Your task to perform on an android device: open app "DuckDuckGo Privacy Browser" (install if not already installed) and enter user name: "cleaving@outlook.com" and password: "freighters" Image 0: 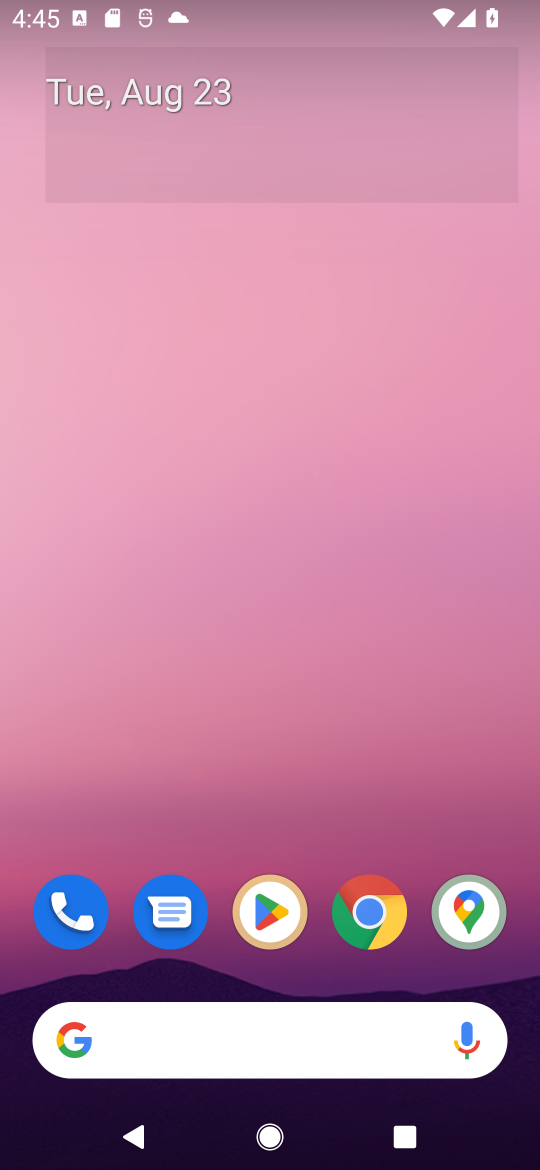
Step 0: drag from (219, 1024) to (282, 98)
Your task to perform on an android device: open app "DuckDuckGo Privacy Browser" (install if not already installed) and enter user name: "cleaving@outlook.com" and password: "freighters" Image 1: 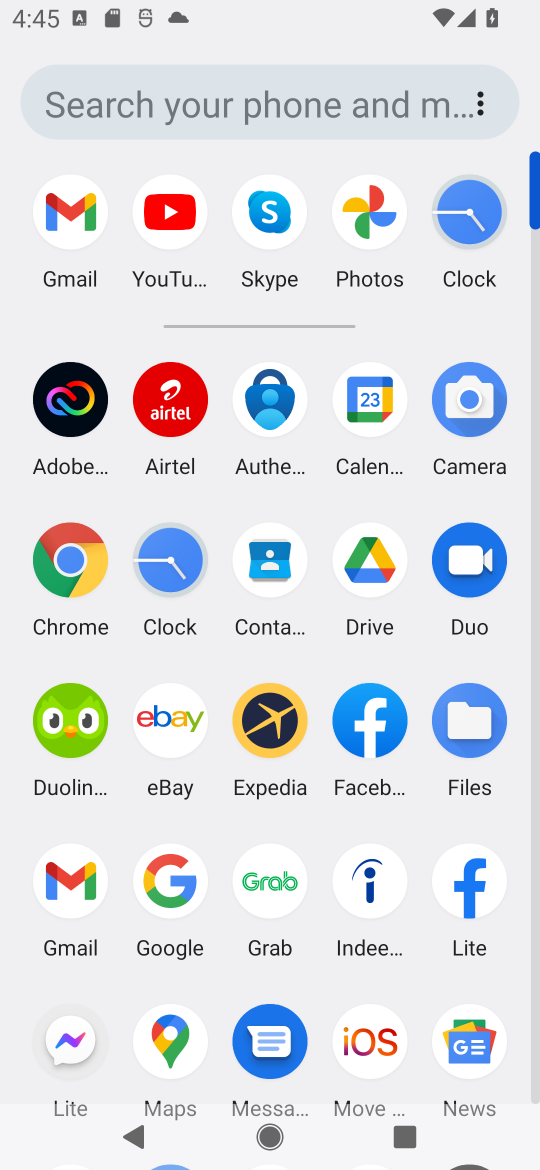
Step 1: drag from (318, 909) to (370, 357)
Your task to perform on an android device: open app "DuckDuckGo Privacy Browser" (install if not already installed) and enter user name: "cleaving@outlook.com" and password: "freighters" Image 2: 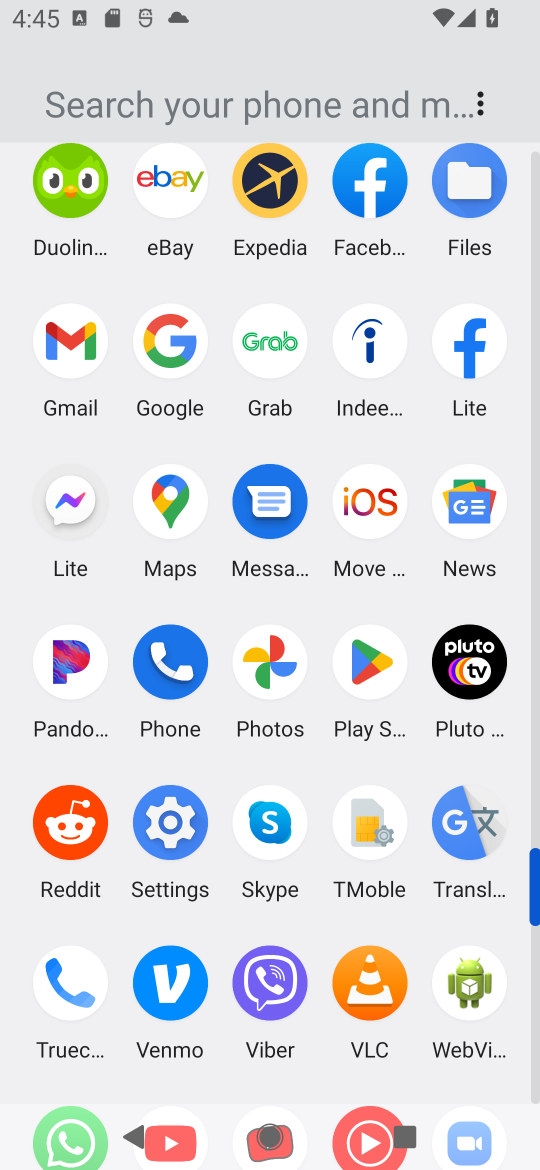
Step 2: click (369, 669)
Your task to perform on an android device: open app "DuckDuckGo Privacy Browser" (install if not already installed) and enter user name: "cleaving@outlook.com" and password: "freighters" Image 3: 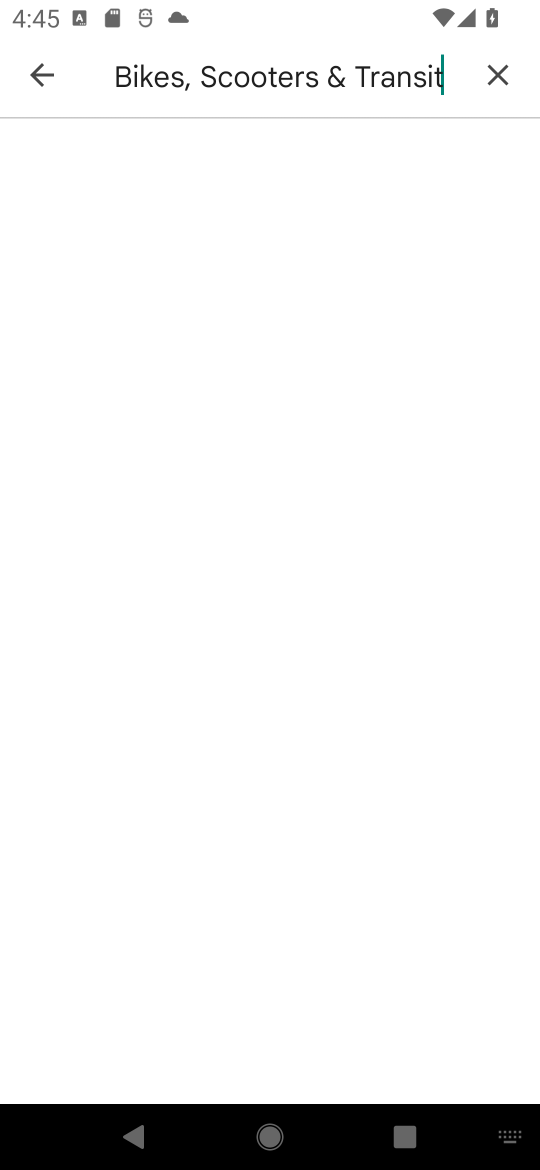
Step 3: press back button
Your task to perform on an android device: open app "DuckDuckGo Privacy Browser" (install if not already installed) and enter user name: "cleaving@outlook.com" and password: "freighters" Image 4: 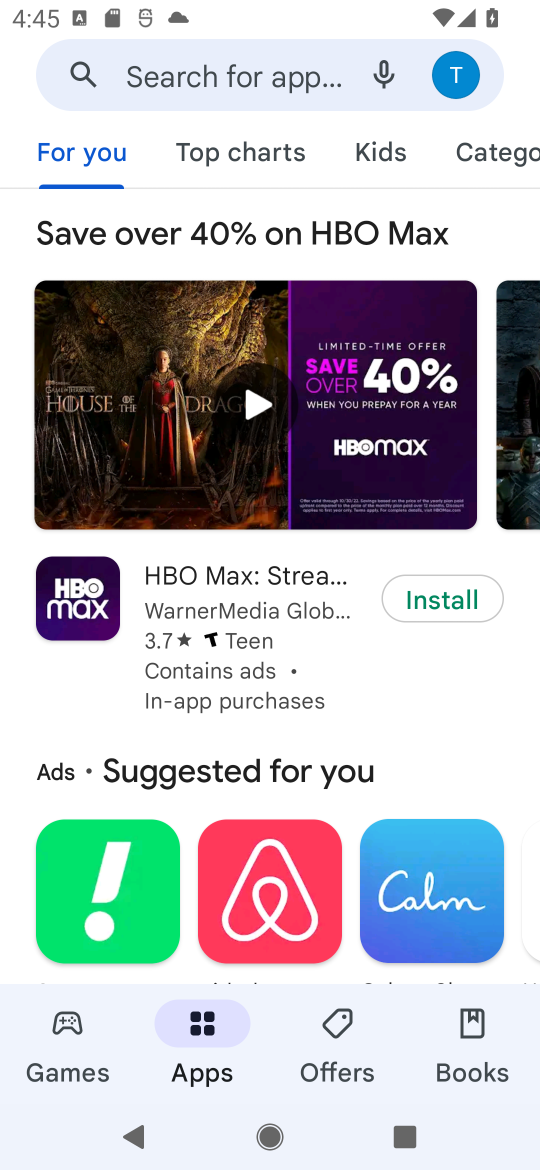
Step 4: click (191, 71)
Your task to perform on an android device: open app "DuckDuckGo Privacy Browser" (install if not already installed) and enter user name: "cleaving@outlook.com" and password: "freighters" Image 5: 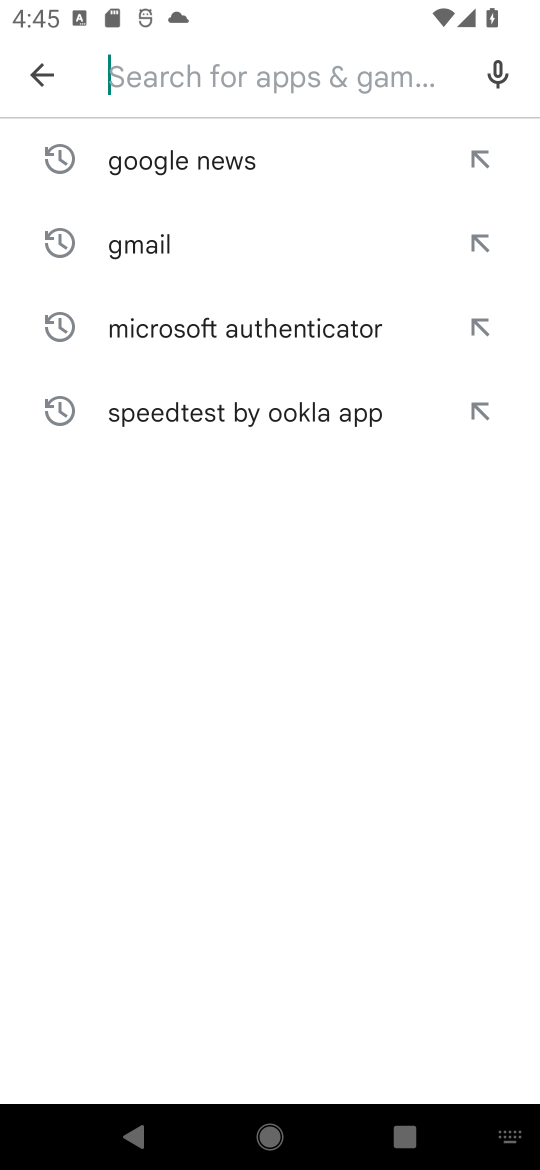
Step 5: click (165, 72)
Your task to perform on an android device: open app "DuckDuckGo Privacy Browser" (install if not already installed) and enter user name: "cleaving@outlook.com" and password: "freighters" Image 6: 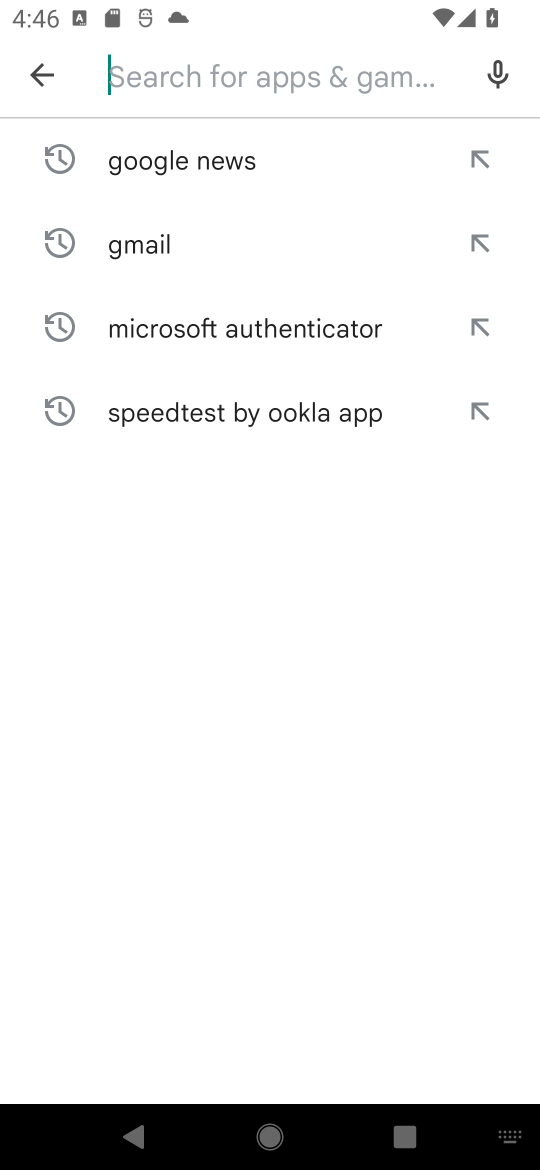
Step 6: type "DuckDuckGo Privacy Browser"
Your task to perform on an android device: open app "DuckDuckGo Privacy Browser" (install if not already installed) and enter user name: "cleaving@outlook.com" and password: "freighters" Image 7: 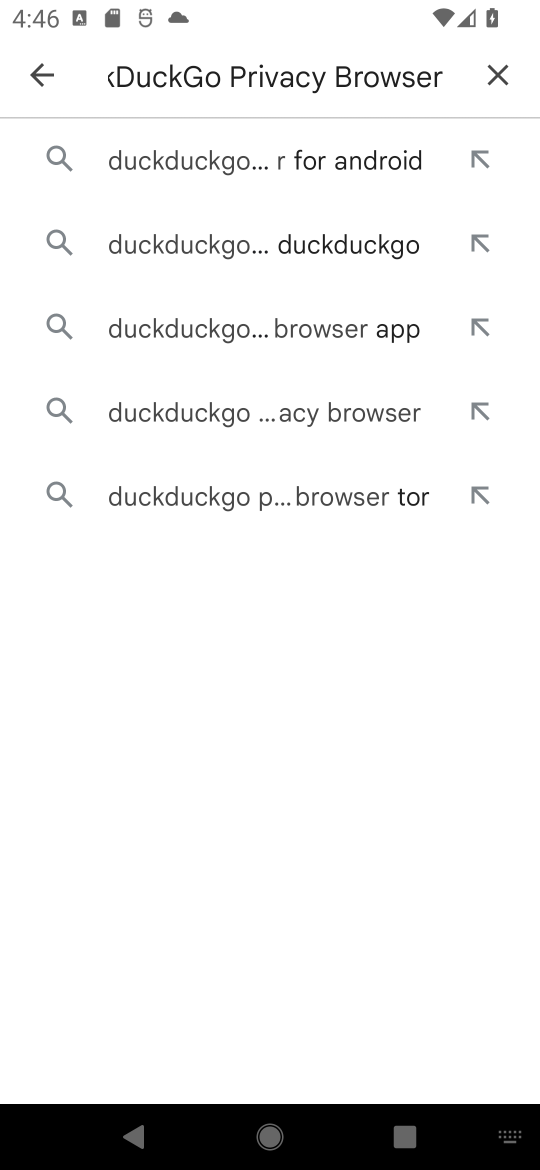
Step 7: click (192, 237)
Your task to perform on an android device: open app "DuckDuckGo Privacy Browser" (install if not already installed) and enter user name: "cleaving@outlook.com" and password: "freighters" Image 8: 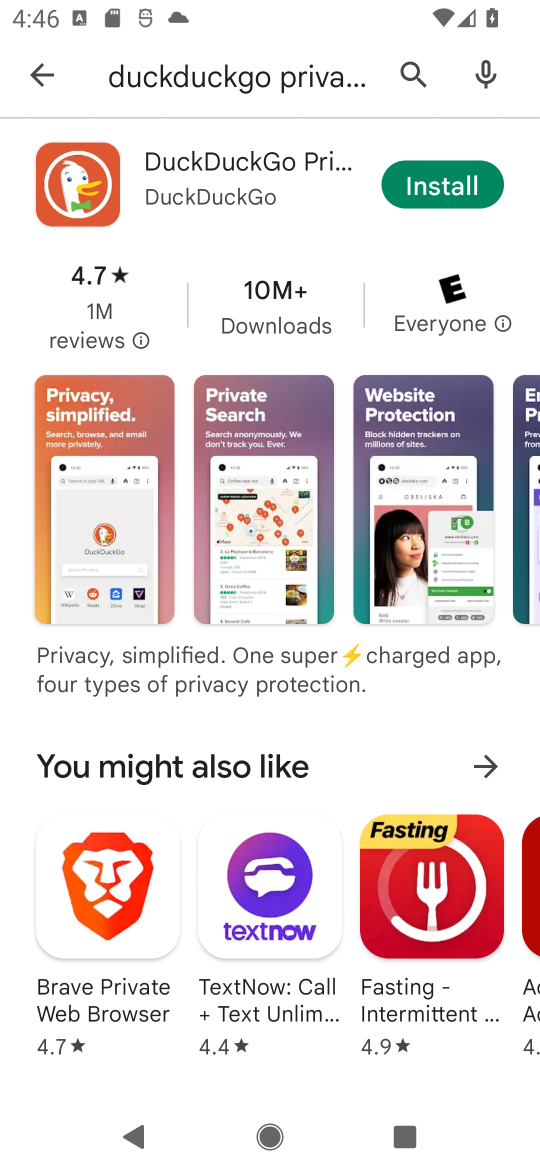
Step 8: click (446, 192)
Your task to perform on an android device: open app "DuckDuckGo Privacy Browser" (install if not already installed) and enter user name: "cleaving@outlook.com" and password: "freighters" Image 9: 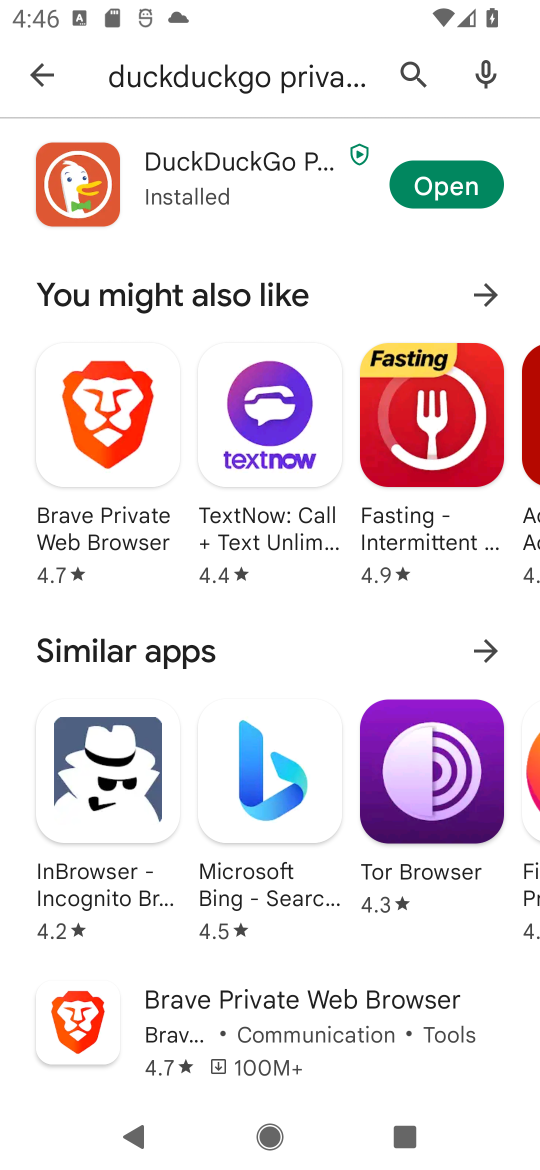
Step 9: click (446, 192)
Your task to perform on an android device: open app "DuckDuckGo Privacy Browser" (install if not already installed) and enter user name: "cleaving@outlook.com" and password: "freighters" Image 10: 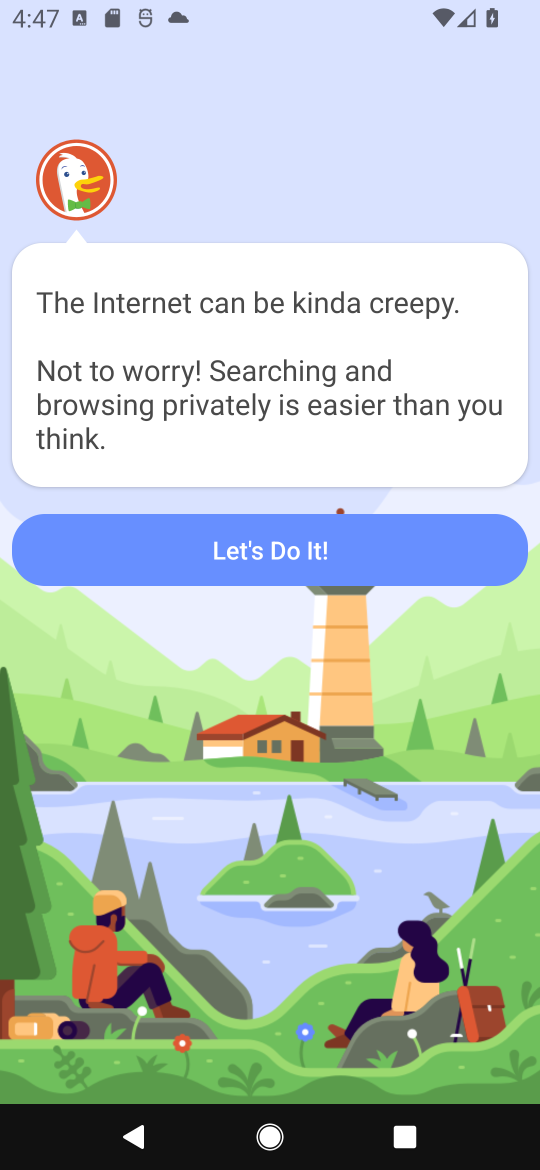
Step 10: click (263, 550)
Your task to perform on an android device: open app "DuckDuckGo Privacy Browser" (install if not already installed) and enter user name: "cleaving@outlook.com" and password: "freighters" Image 11: 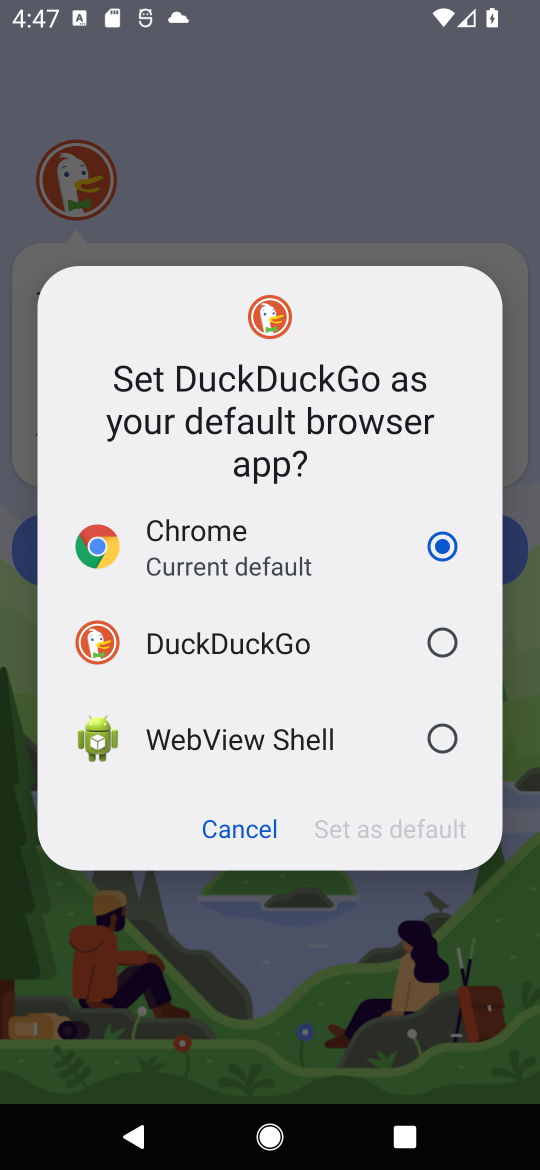
Step 11: click (429, 635)
Your task to perform on an android device: open app "DuckDuckGo Privacy Browser" (install if not already installed) and enter user name: "cleaving@outlook.com" and password: "freighters" Image 12: 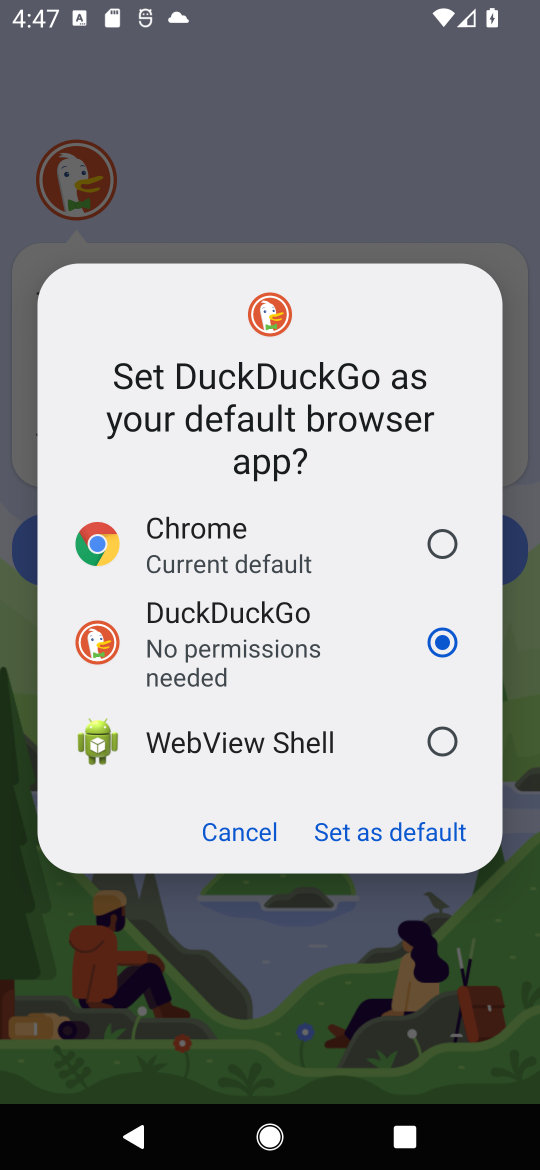
Step 12: click (405, 839)
Your task to perform on an android device: open app "DuckDuckGo Privacy Browser" (install if not already installed) and enter user name: "cleaving@outlook.com" and password: "freighters" Image 13: 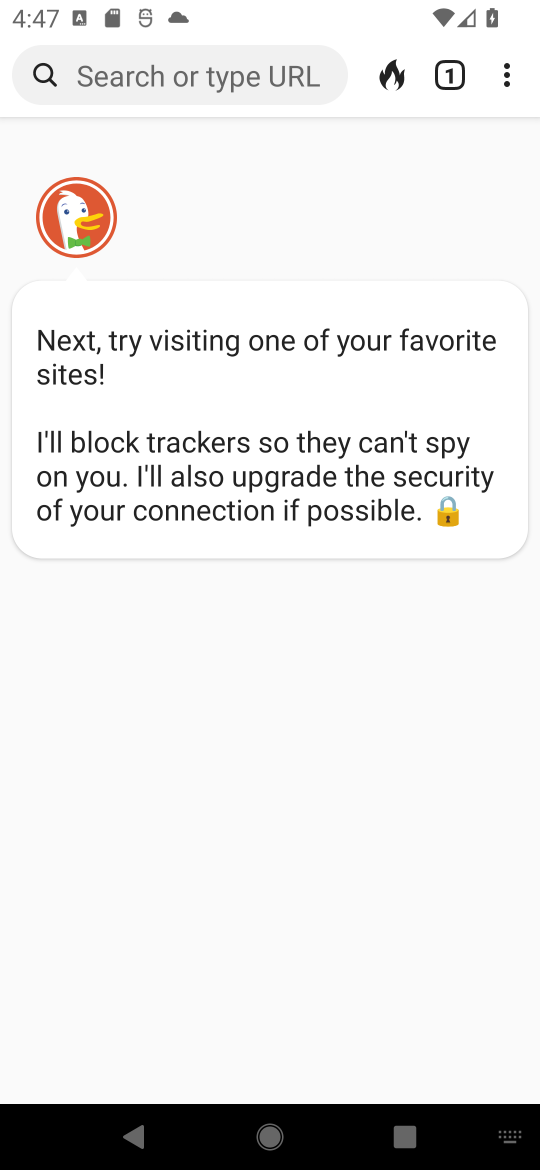
Step 13: click (277, 422)
Your task to perform on an android device: open app "DuckDuckGo Privacy Browser" (install if not already installed) and enter user name: "cleaving@outlook.com" and password: "freighters" Image 14: 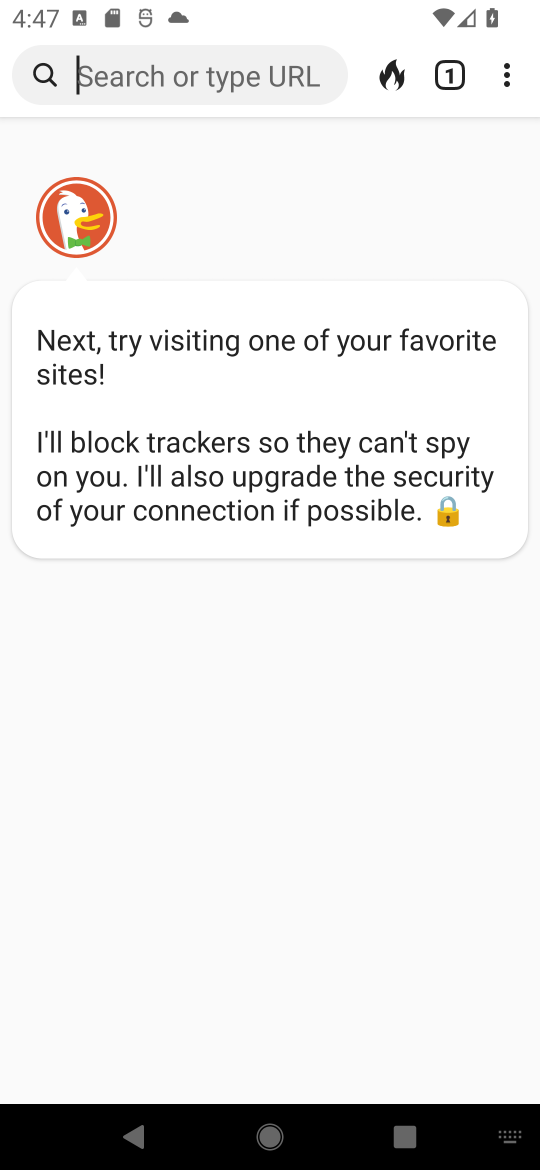
Step 14: press back button
Your task to perform on an android device: open app "DuckDuckGo Privacy Browser" (install if not already installed) and enter user name: "cleaving@outlook.com" and password: "freighters" Image 15: 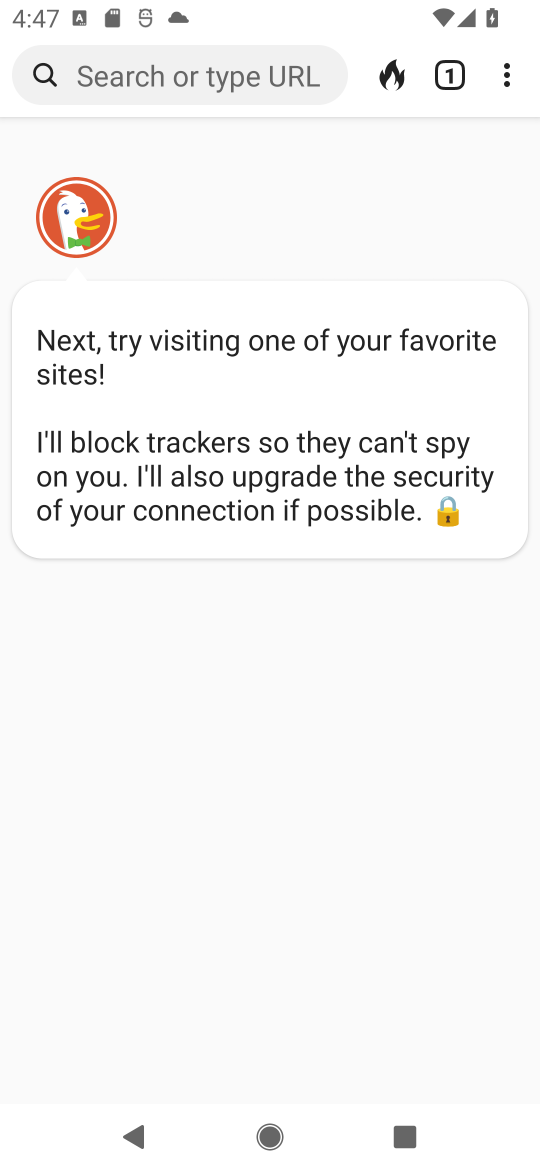
Step 15: press back button
Your task to perform on an android device: open app "DuckDuckGo Privacy Browser" (install if not already installed) and enter user name: "cleaving@outlook.com" and password: "freighters" Image 16: 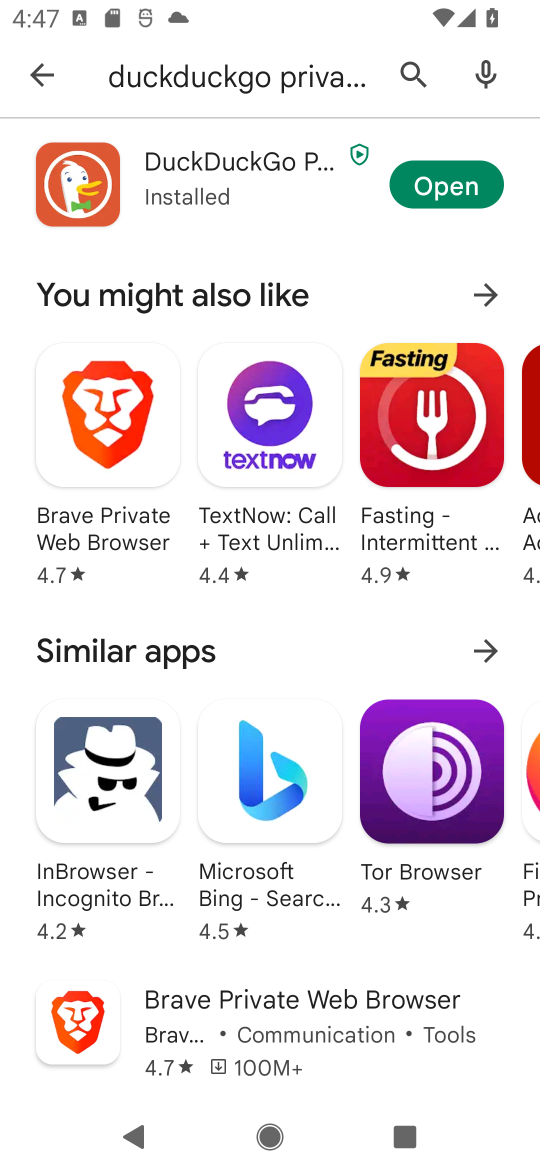
Step 16: click (437, 171)
Your task to perform on an android device: open app "DuckDuckGo Privacy Browser" (install if not already installed) and enter user name: "cleaving@outlook.com" and password: "freighters" Image 17: 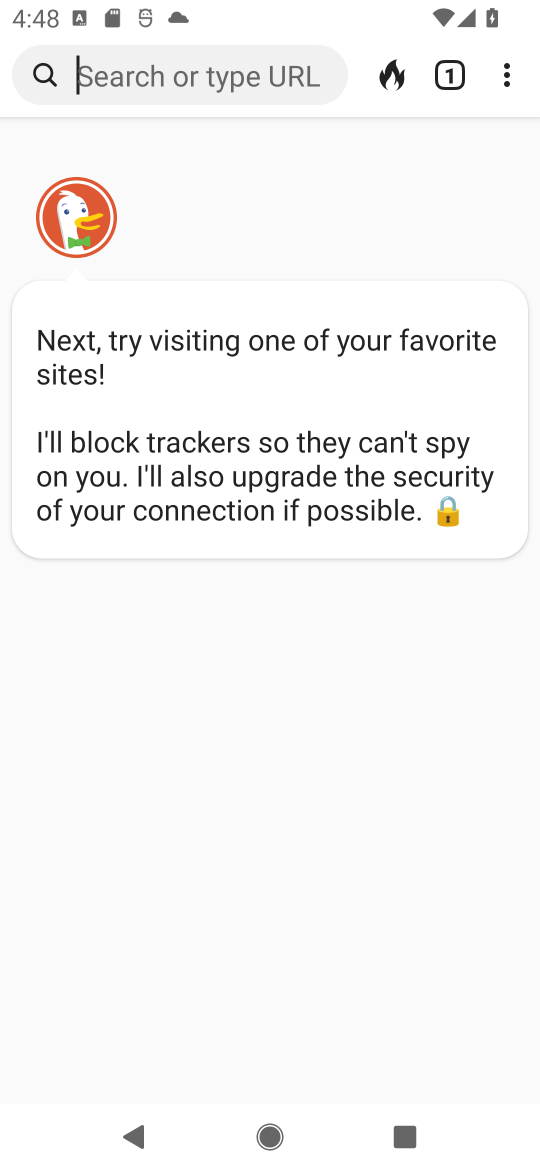
Step 17: task complete